Your task to perform on an android device: move an email to a new category in the gmail app Image 0: 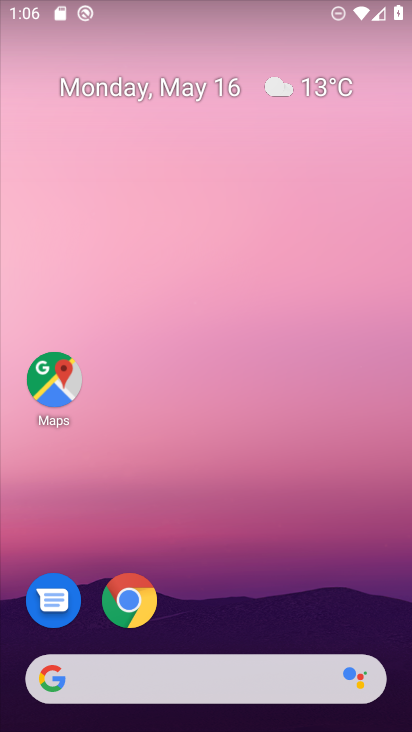
Step 0: drag from (225, 640) to (287, 37)
Your task to perform on an android device: move an email to a new category in the gmail app Image 1: 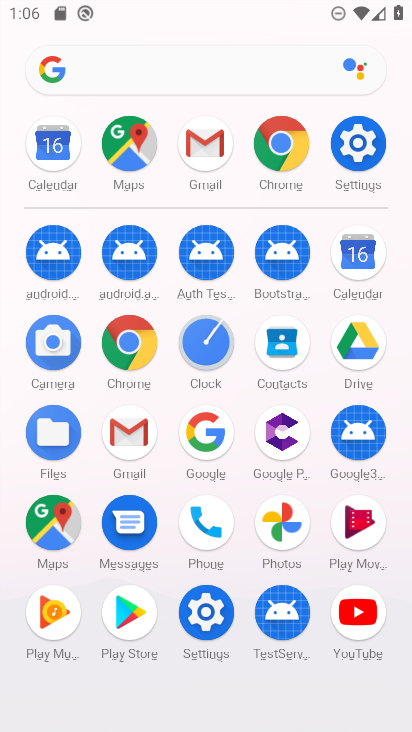
Step 1: click (127, 426)
Your task to perform on an android device: move an email to a new category in the gmail app Image 2: 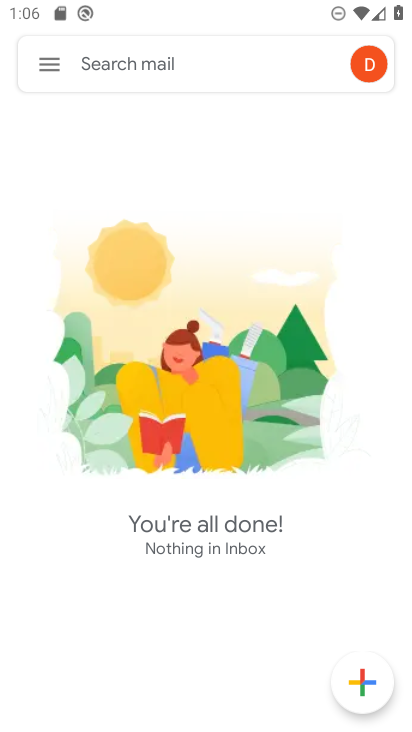
Step 2: click (45, 56)
Your task to perform on an android device: move an email to a new category in the gmail app Image 3: 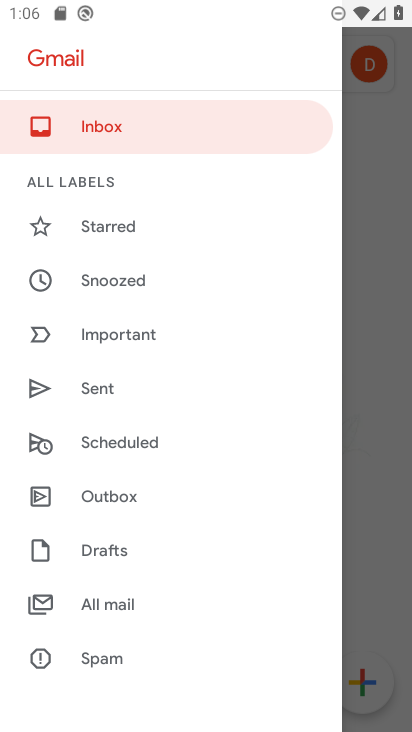
Step 3: click (153, 602)
Your task to perform on an android device: move an email to a new category in the gmail app Image 4: 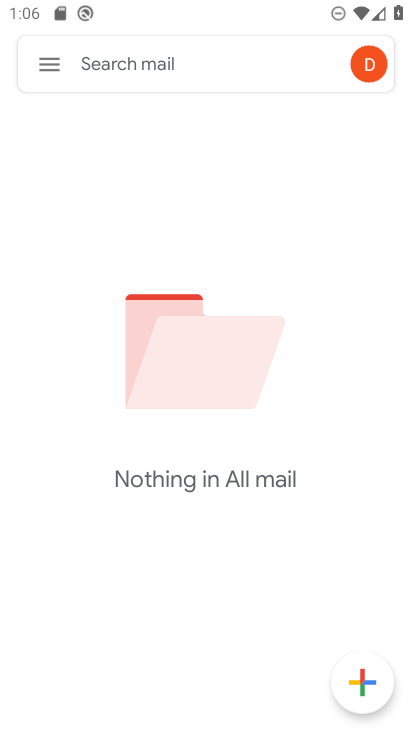
Step 4: task complete